Your task to perform on an android device: change notification settings in the gmail app Image 0: 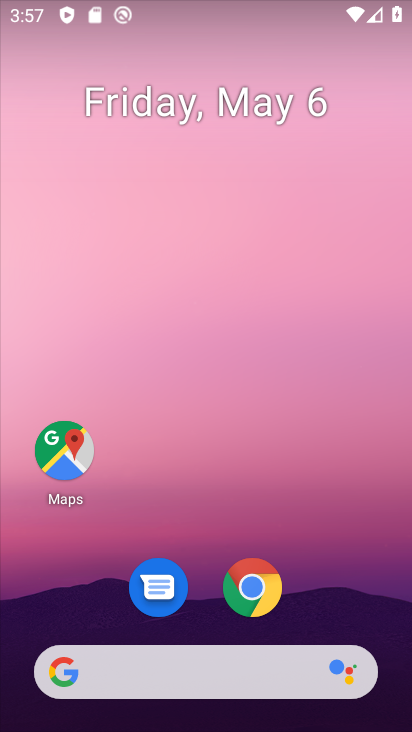
Step 0: drag from (251, 703) to (301, 109)
Your task to perform on an android device: change notification settings in the gmail app Image 1: 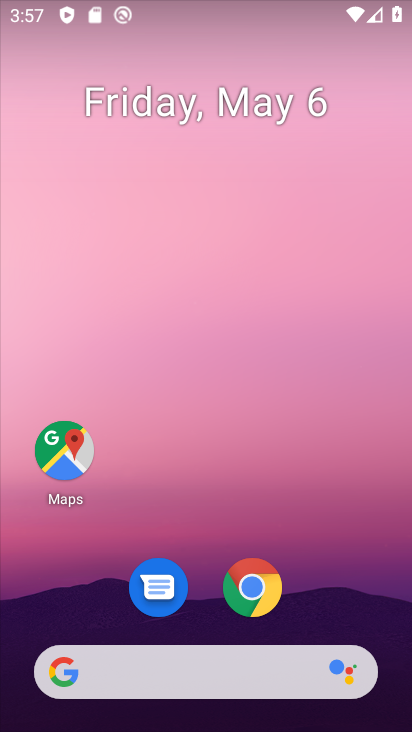
Step 1: drag from (312, 705) to (204, 80)
Your task to perform on an android device: change notification settings in the gmail app Image 2: 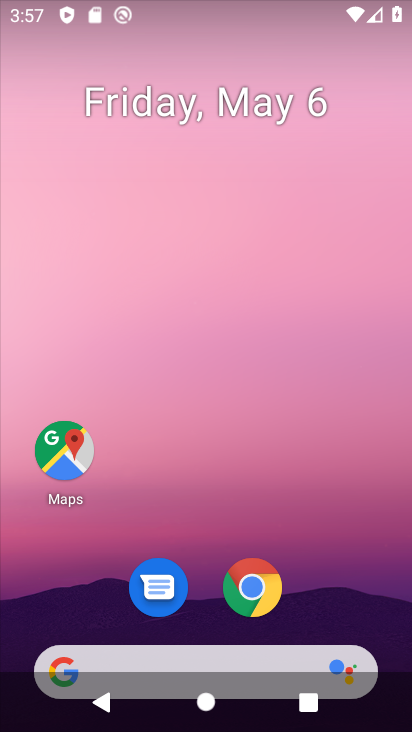
Step 2: drag from (314, 598) to (218, 92)
Your task to perform on an android device: change notification settings in the gmail app Image 3: 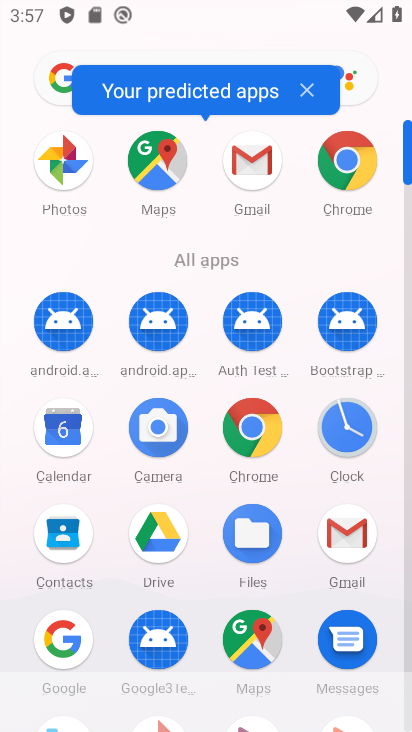
Step 3: click (256, 189)
Your task to perform on an android device: change notification settings in the gmail app Image 4: 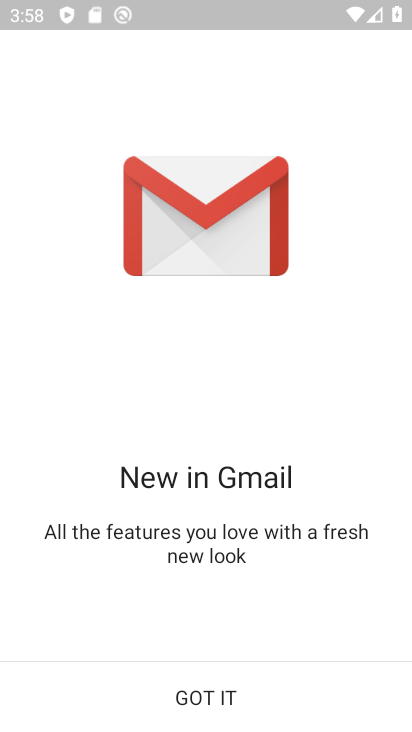
Step 4: click (177, 694)
Your task to perform on an android device: change notification settings in the gmail app Image 5: 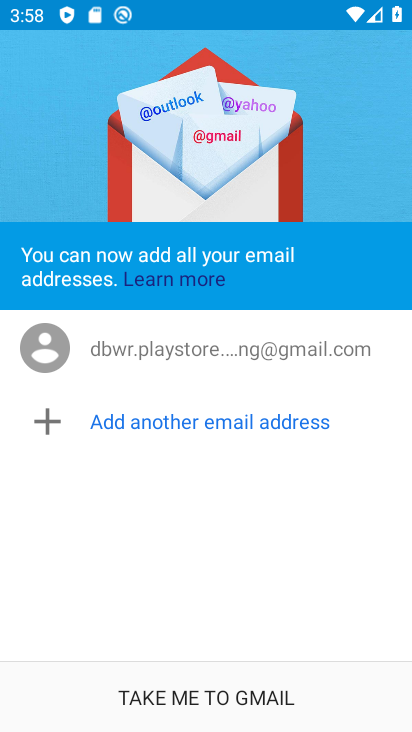
Step 5: click (158, 709)
Your task to perform on an android device: change notification settings in the gmail app Image 6: 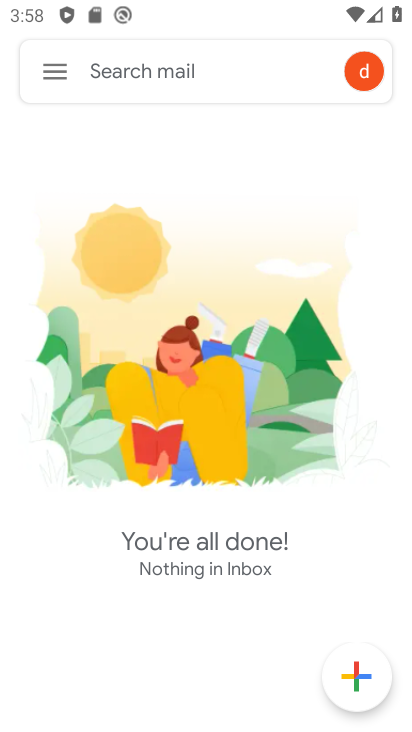
Step 6: click (74, 70)
Your task to perform on an android device: change notification settings in the gmail app Image 7: 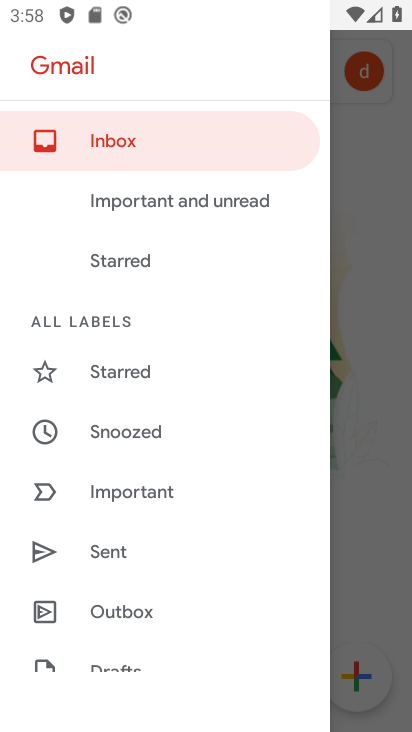
Step 7: drag from (82, 507) to (182, 142)
Your task to perform on an android device: change notification settings in the gmail app Image 8: 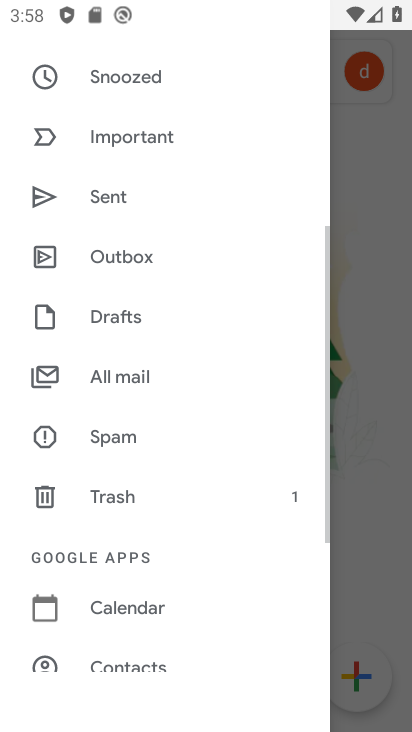
Step 8: drag from (121, 559) to (187, 343)
Your task to perform on an android device: change notification settings in the gmail app Image 9: 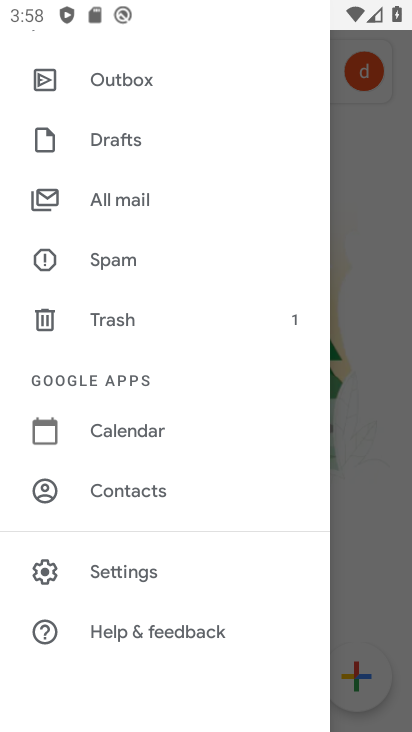
Step 9: click (119, 563)
Your task to perform on an android device: change notification settings in the gmail app Image 10: 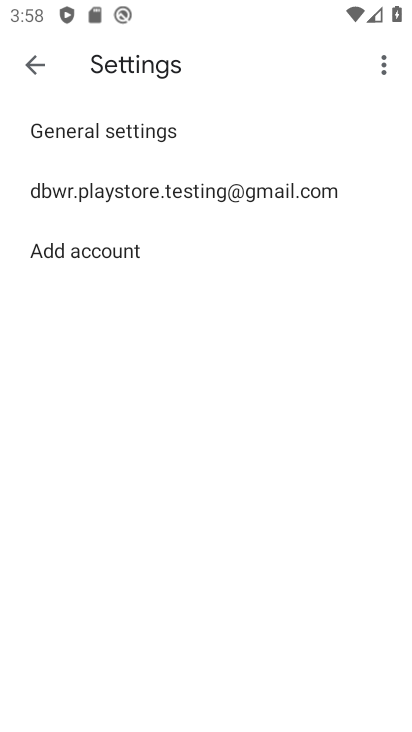
Step 10: click (143, 210)
Your task to perform on an android device: change notification settings in the gmail app Image 11: 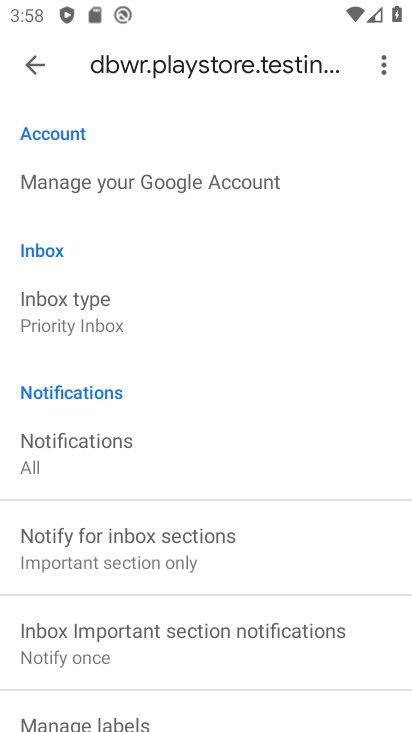
Step 11: click (77, 461)
Your task to perform on an android device: change notification settings in the gmail app Image 12: 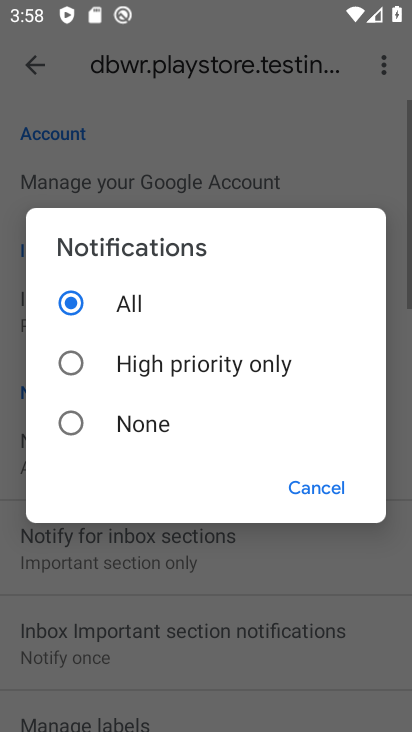
Step 12: click (186, 361)
Your task to perform on an android device: change notification settings in the gmail app Image 13: 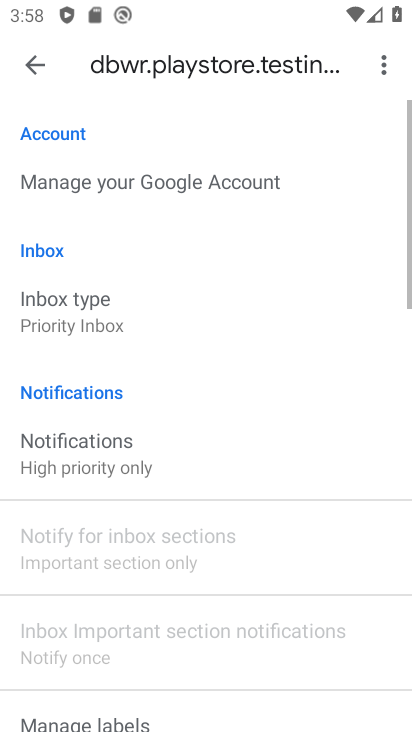
Step 13: task complete